Your task to perform on an android device: Open Google Chrome and open the bookmarks view Image 0: 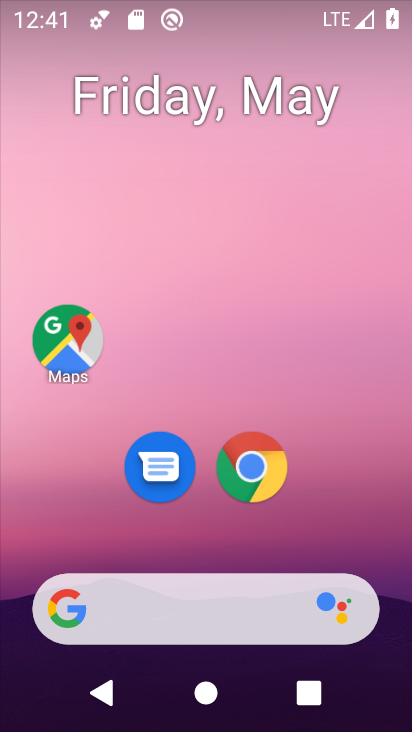
Step 0: drag from (355, 504) to (333, 0)
Your task to perform on an android device: Open Google Chrome and open the bookmarks view Image 1: 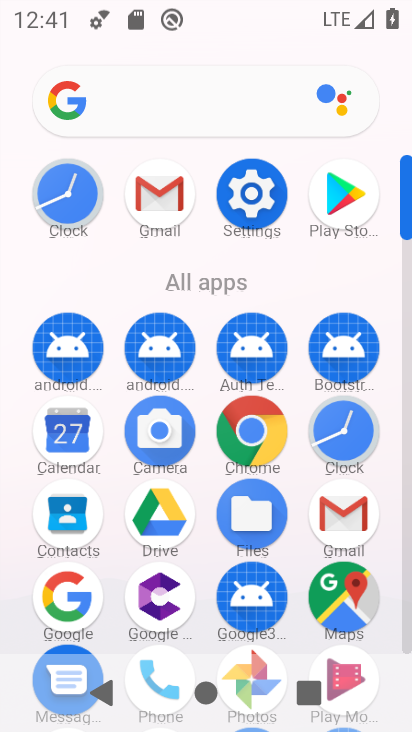
Step 1: click (255, 425)
Your task to perform on an android device: Open Google Chrome and open the bookmarks view Image 2: 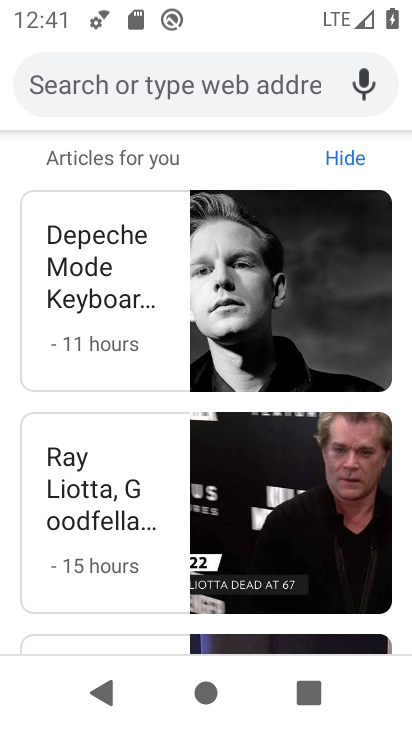
Step 2: drag from (317, 163) to (339, 579)
Your task to perform on an android device: Open Google Chrome and open the bookmarks view Image 3: 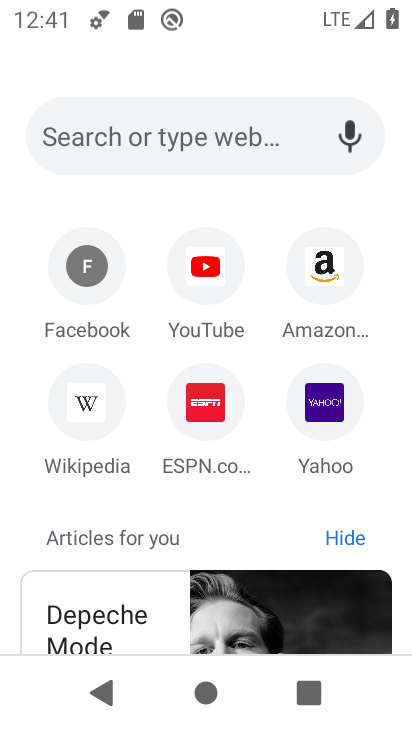
Step 3: drag from (356, 155) to (376, 614)
Your task to perform on an android device: Open Google Chrome and open the bookmarks view Image 4: 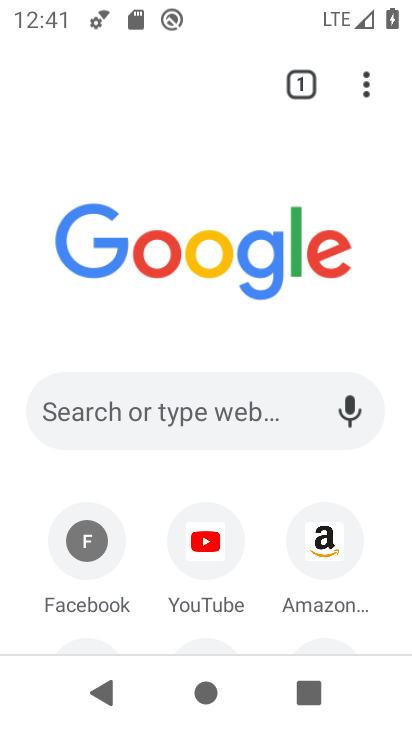
Step 4: drag from (377, 100) to (96, 346)
Your task to perform on an android device: Open Google Chrome and open the bookmarks view Image 5: 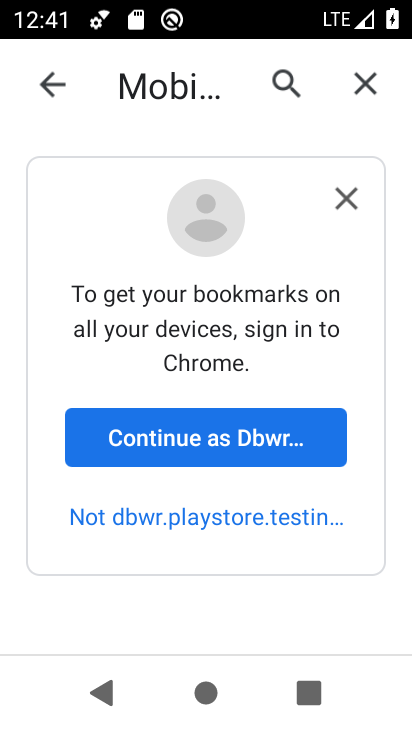
Step 5: click (162, 436)
Your task to perform on an android device: Open Google Chrome and open the bookmarks view Image 6: 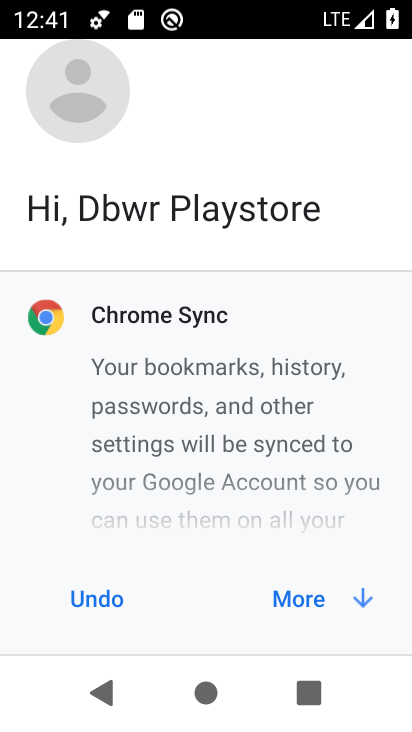
Step 6: click (345, 593)
Your task to perform on an android device: Open Google Chrome and open the bookmarks view Image 7: 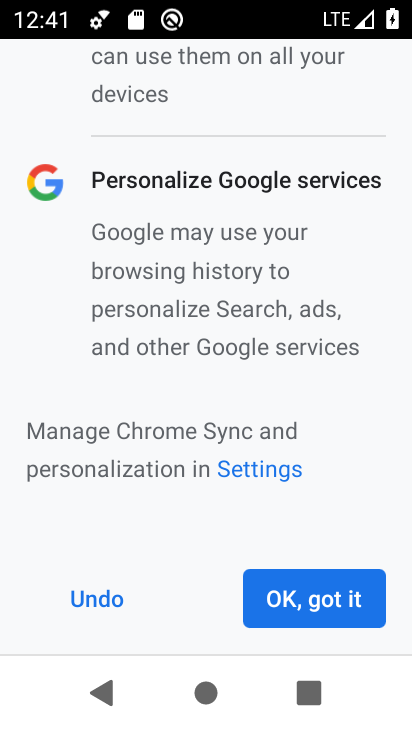
Step 7: click (341, 592)
Your task to perform on an android device: Open Google Chrome and open the bookmarks view Image 8: 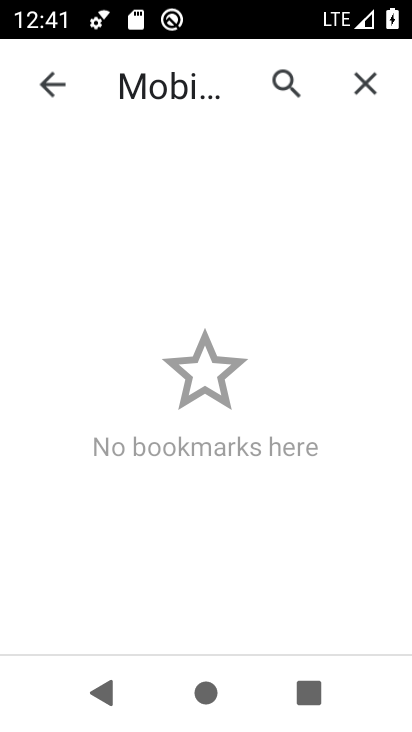
Step 8: task complete